Your task to perform on an android device: snooze an email in the gmail app Image 0: 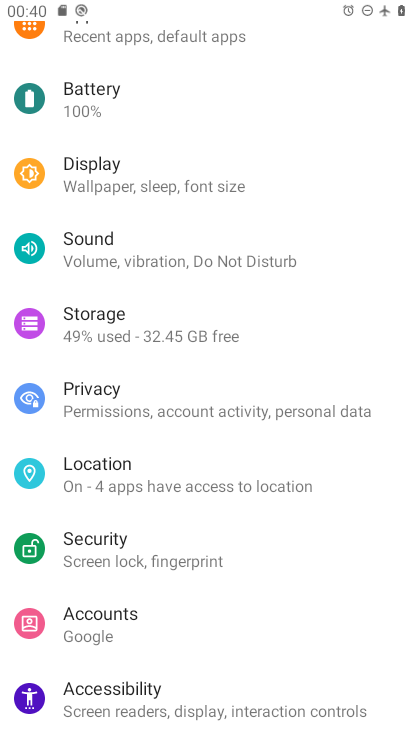
Step 0: press home button
Your task to perform on an android device: snooze an email in the gmail app Image 1: 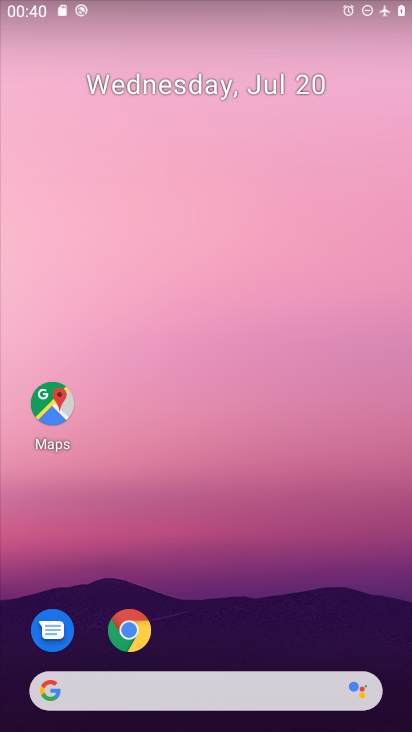
Step 1: drag from (213, 645) to (220, 198)
Your task to perform on an android device: snooze an email in the gmail app Image 2: 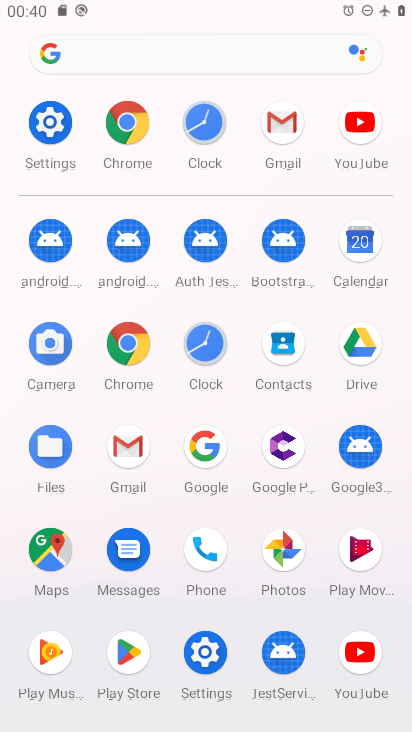
Step 2: click (261, 133)
Your task to perform on an android device: snooze an email in the gmail app Image 3: 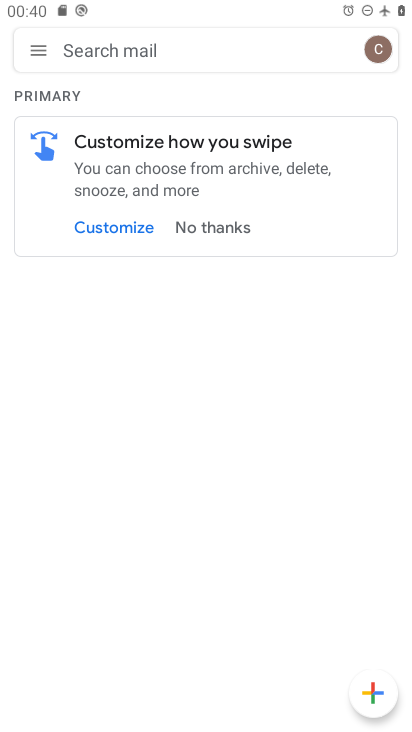
Step 3: click (36, 54)
Your task to perform on an android device: snooze an email in the gmail app Image 4: 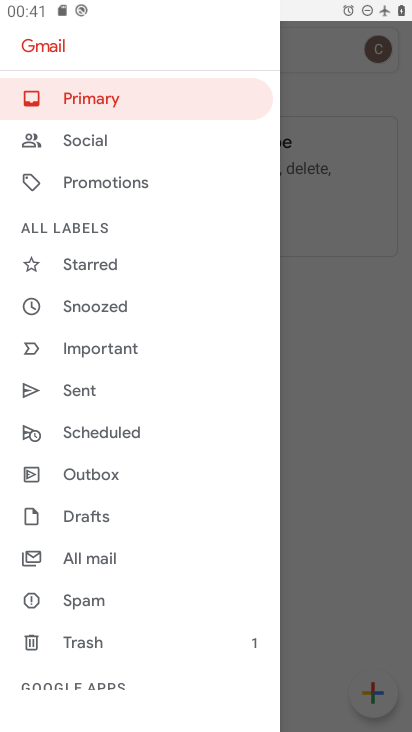
Step 4: click (111, 565)
Your task to perform on an android device: snooze an email in the gmail app Image 5: 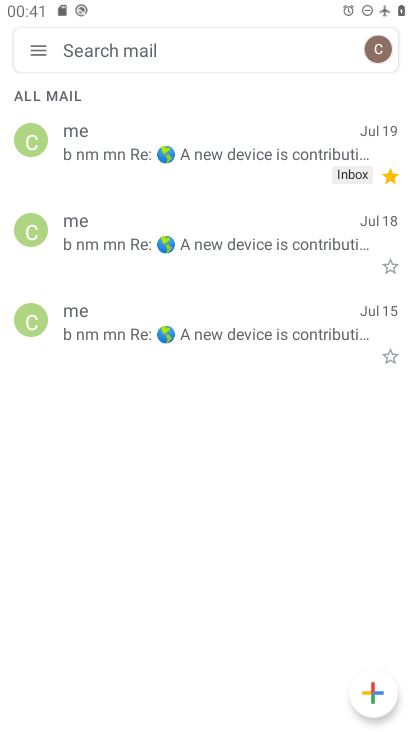
Step 5: click (150, 141)
Your task to perform on an android device: snooze an email in the gmail app Image 6: 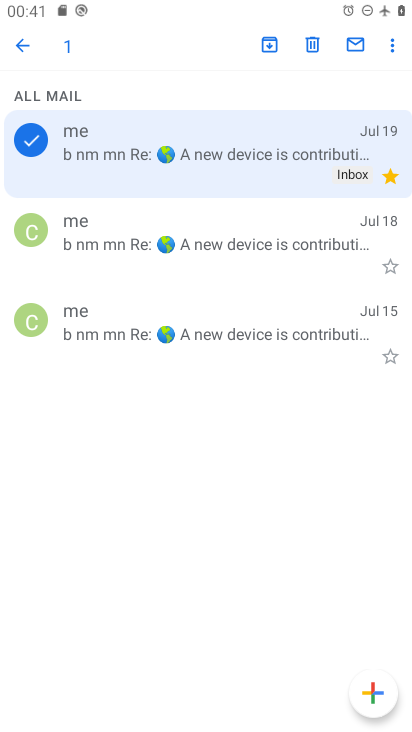
Step 6: click (392, 46)
Your task to perform on an android device: snooze an email in the gmail app Image 7: 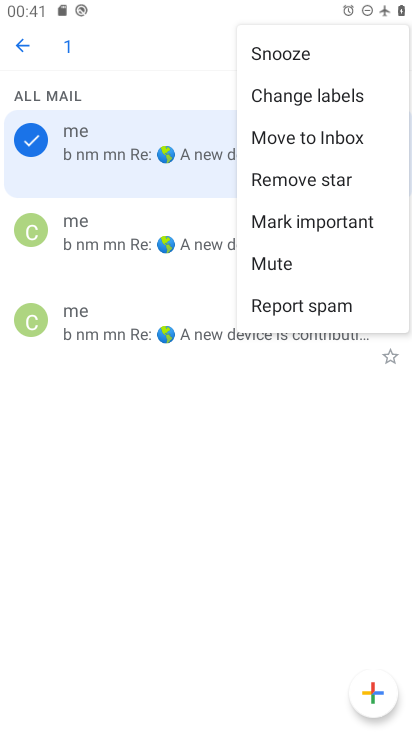
Step 7: click (276, 60)
Your task to perform on an android device: snooze an email in the gmail app Image 8: 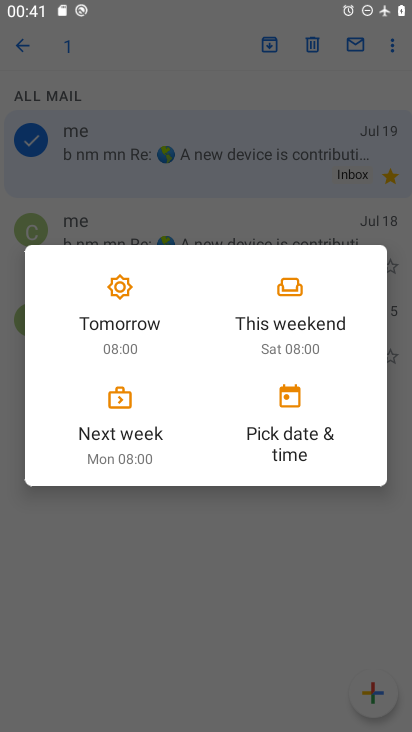
Step 8: click (115, 307)
Your task to perform on an android device: snooze an email in the gmail app Image 9: 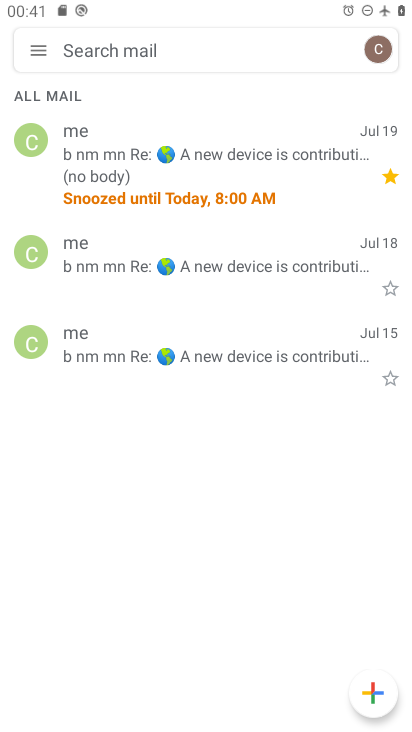
Step 9: task complete